Your task to perform on an android device: Do I have any events today? Image 0: 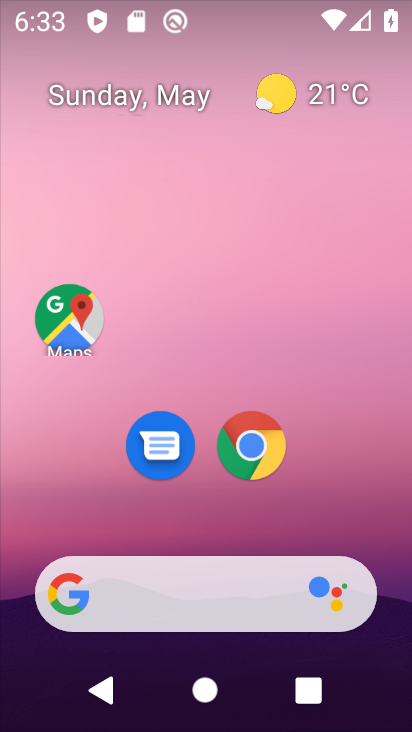
Step 0: drag from (295, 526) to (143, 21)
Your task to perform on an android device: Do I have any events today? Image 1: 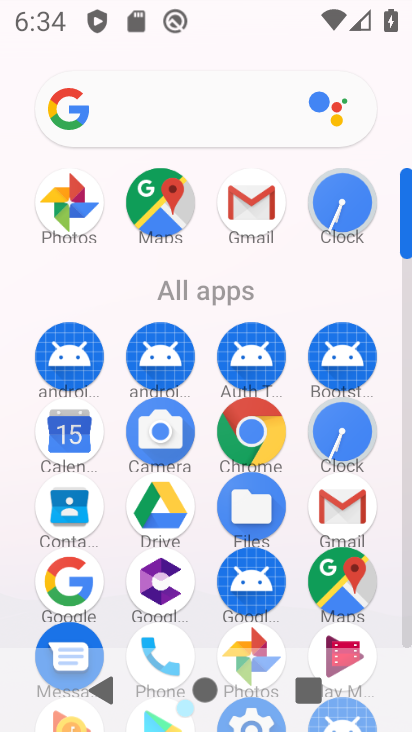
Step 1: click (59, 436)
Your task to perform on an android device: Do I have any events today? Image 2: 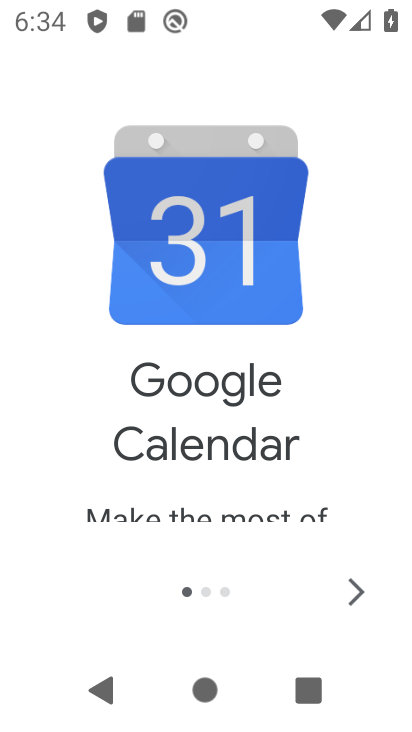
Step 2: click (356, 594)
Your task to perform on an android device: Do I have any events today? Image 3: 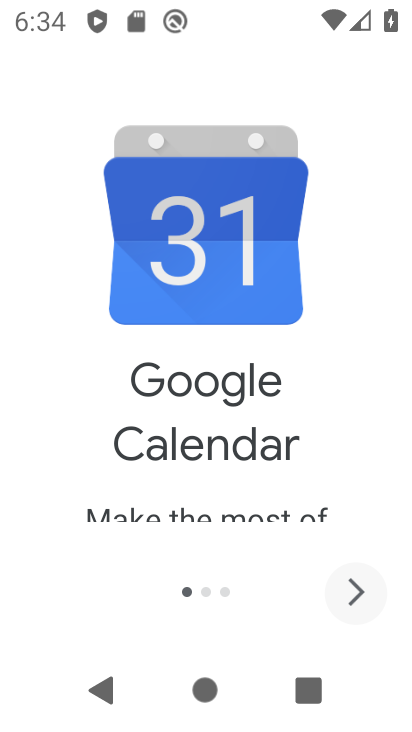
Step 3: click (356, 594)
Your task to perform on an android device: Do I have any events today? Image 4: 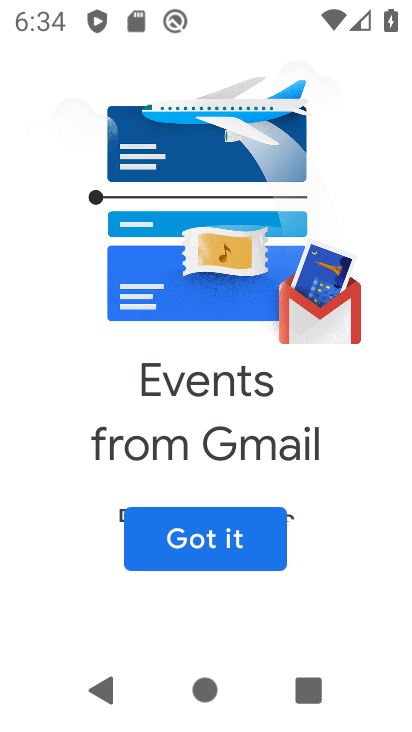
Step 4: click (216, 547)
Your task to perform on an android device: Do I have any events today? Image 5: 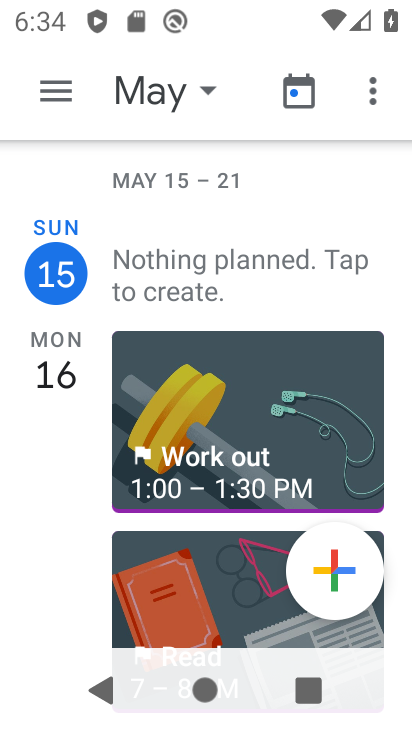
Step 5: click (50, 89)
Your task to perform on an android device: Do I have any events today? Image 6: 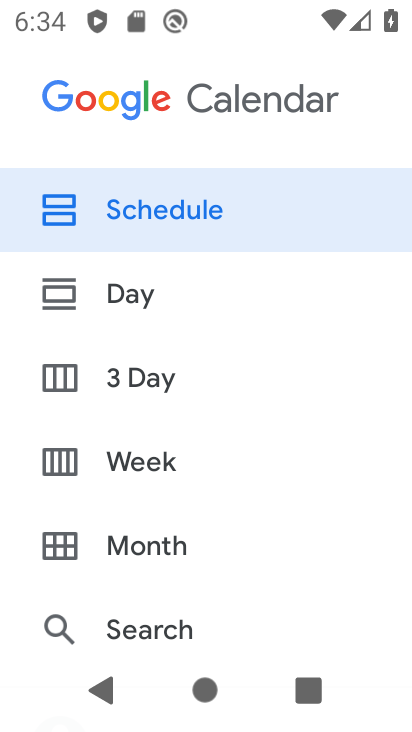
Step 6: click (138, 294)
Your task to perform on an android device: Do I have any events today? Image 7: 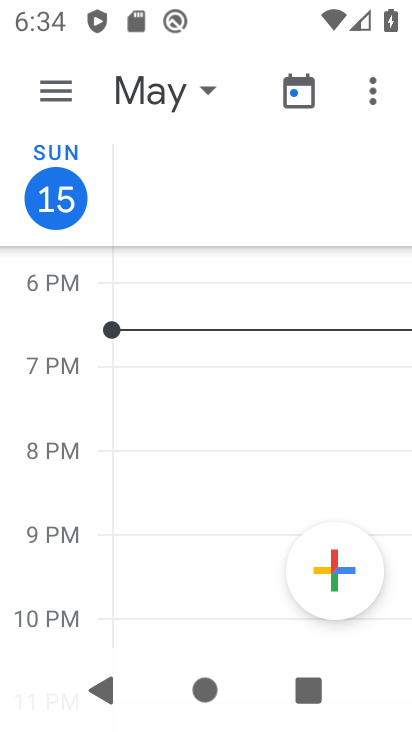
Step 7: task complete